Your task to perform on an android device: change the clock display to analog Image 0: 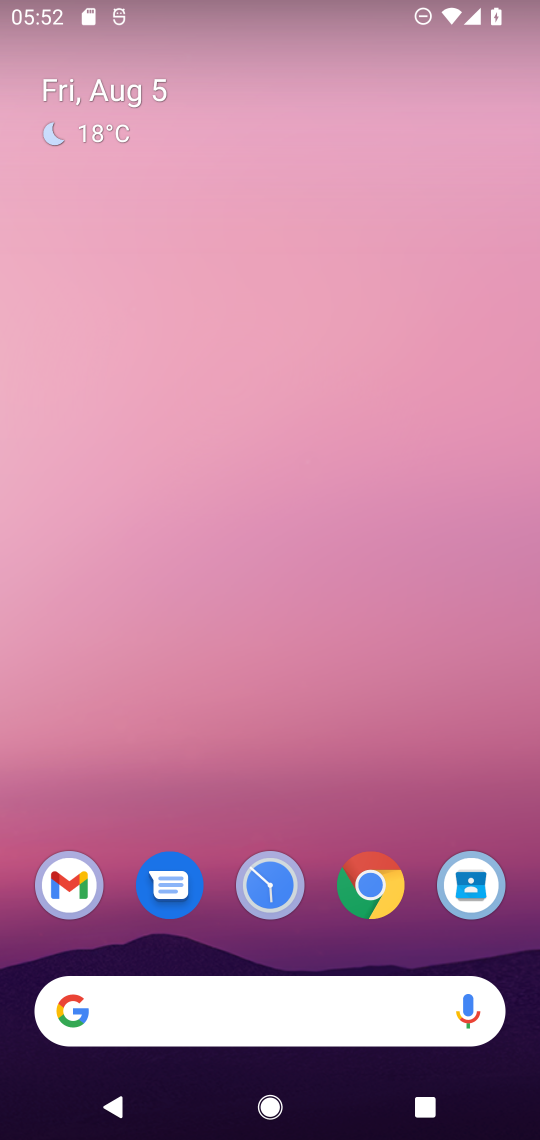
Step 0: drag from (319, 955) to (273, 78)
Your task to perform on an android device: change the clock display to analog Image 1: 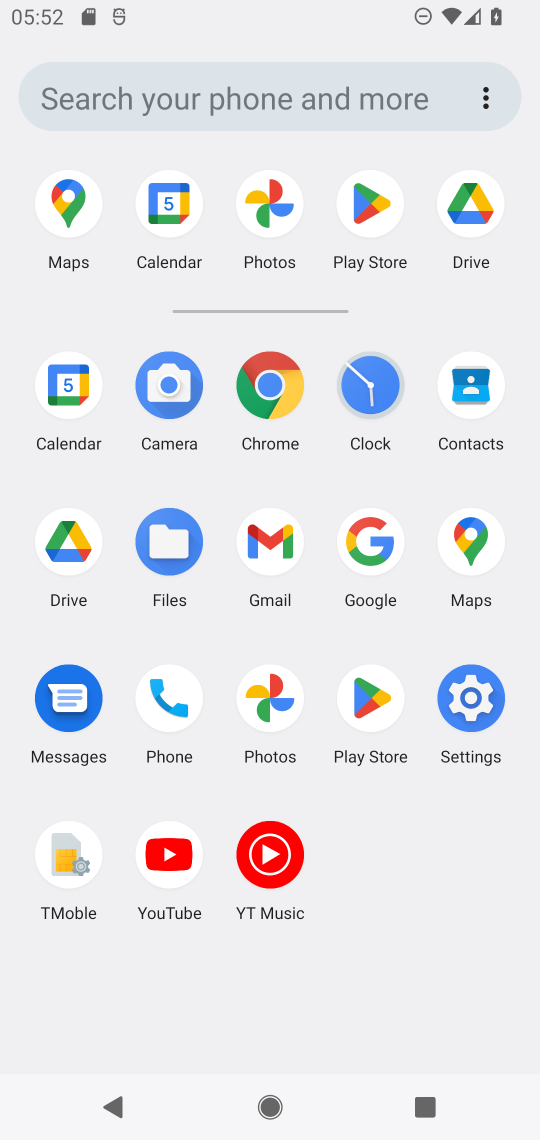
Step 1: click (370, 396)
Your task to perform on an android device: change the clock display to analog Image 2: 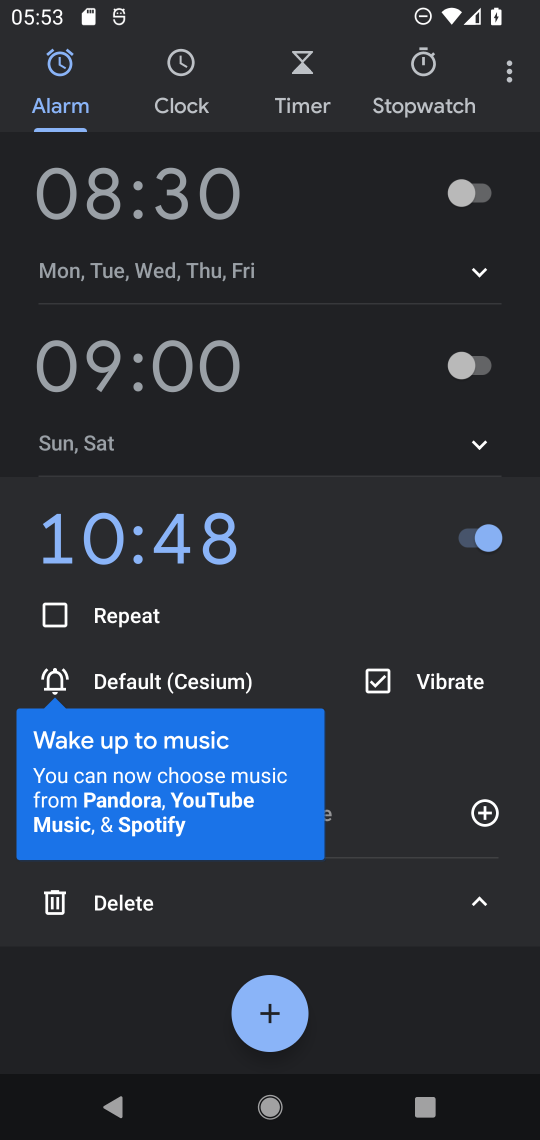
Step 2: click (510, 81)
Your task to perform on an android device: change the clock display to analog Image 3: 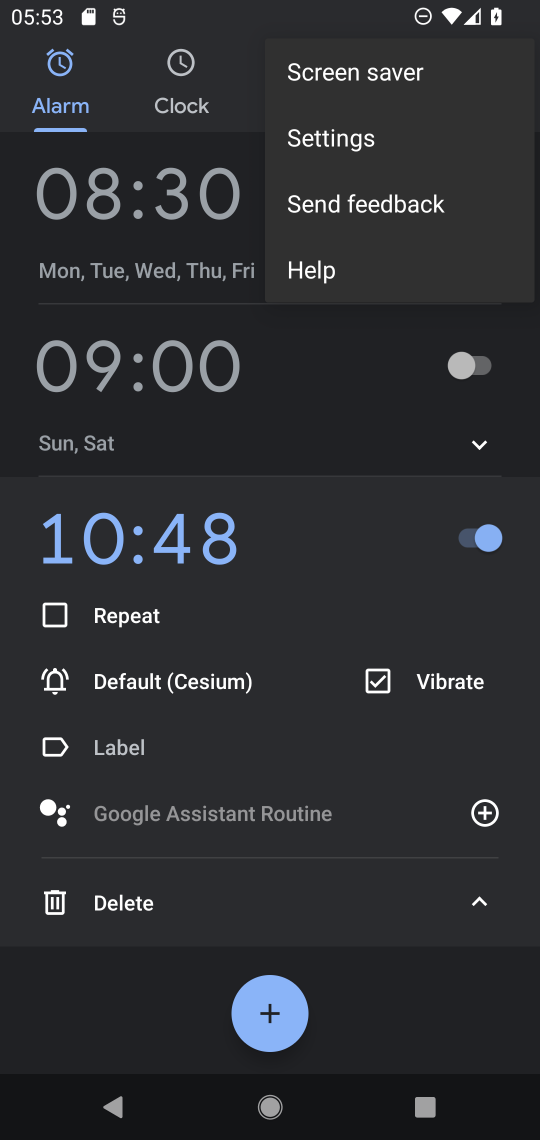
Step 3: click (330, 144)
Your task to perform on an android device: change the clock display to analog Image 4: 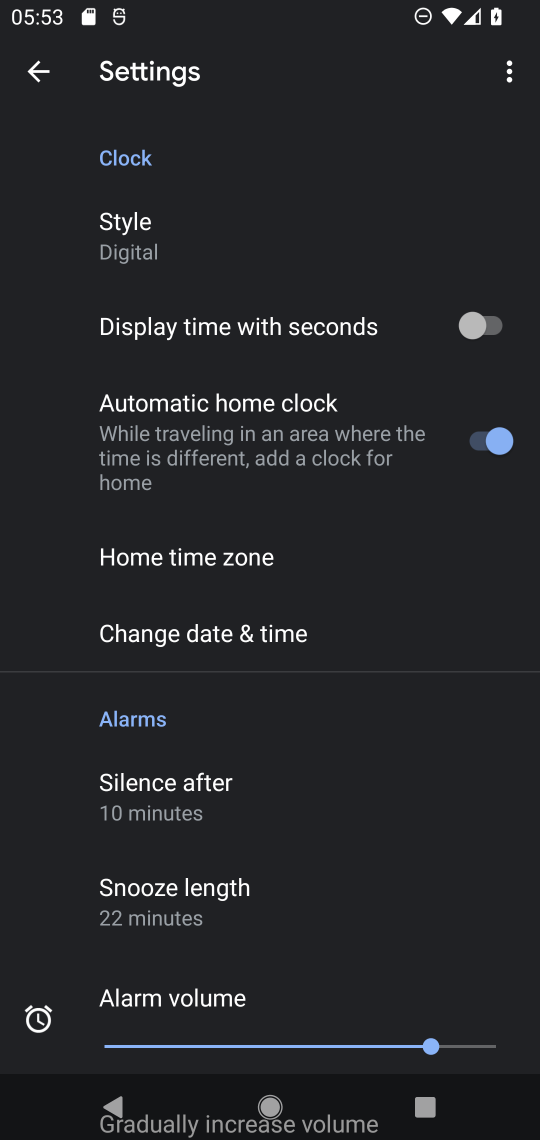
Step 4: click (141, 233)
Your task to perform on an android device: change the clock display to analog Image 5: 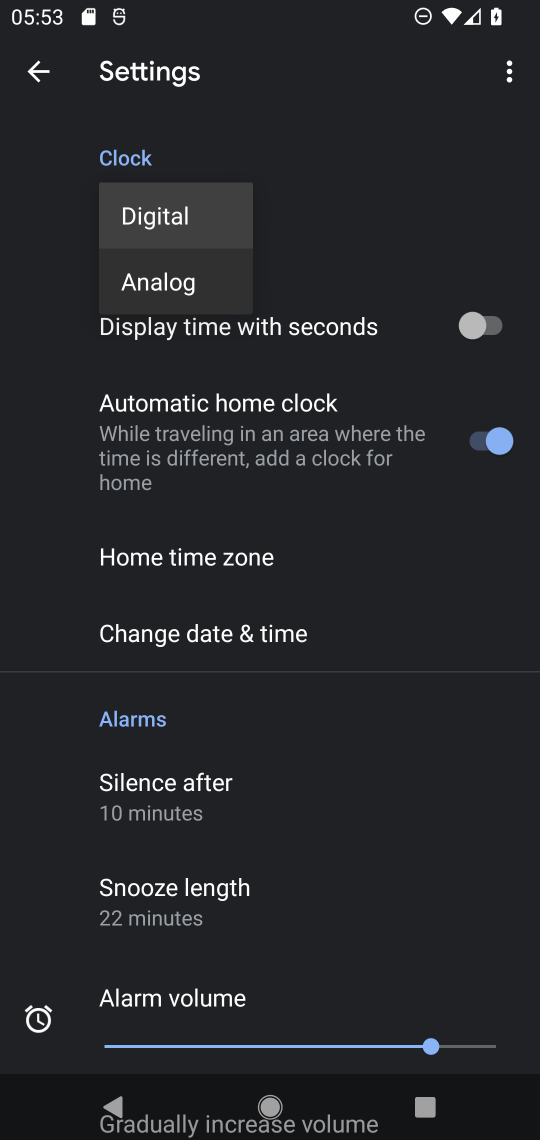
Step 5: click (159, 278)
Your task to perform on an android device: change the clock display to analog Image 6: 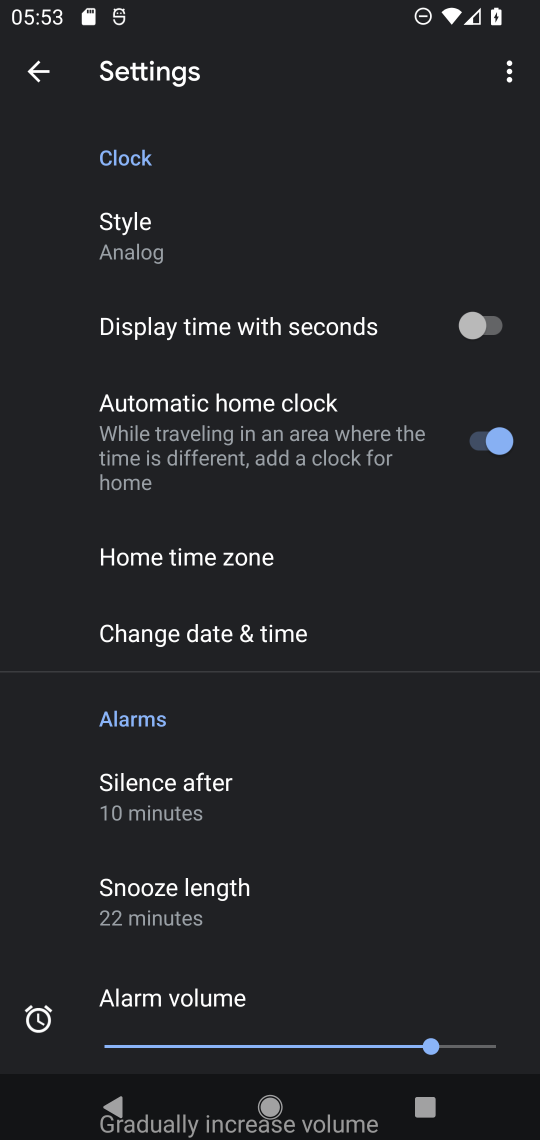
Step 6: task complete